Your task to perform on an android device: check battery use Image 0: 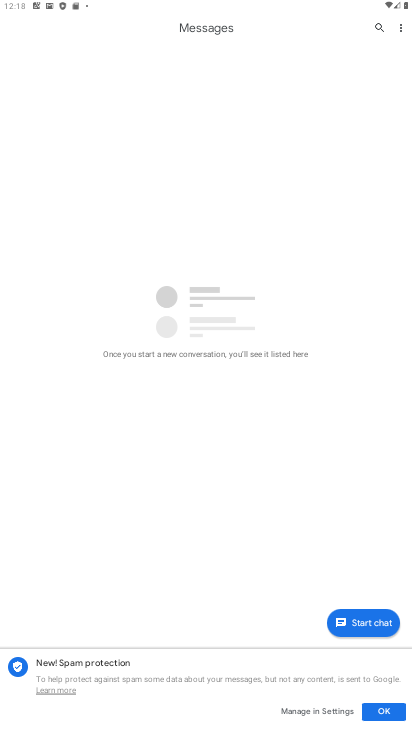
Step 0: press home button
Your task to perform on an android device: check battery use Image 1: 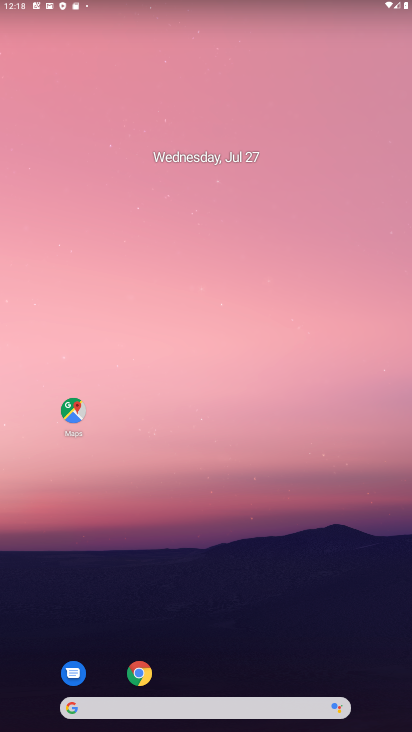
Step 1: drag from (166, 658) to (192, 264)
Your task to perform on an android device: check battery use Image 2: 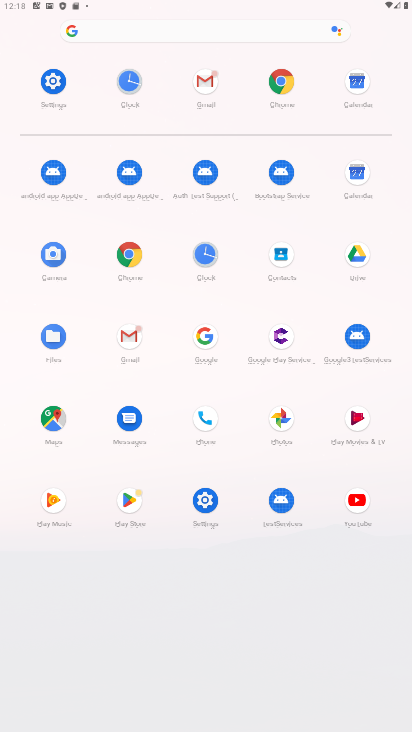
Step 2: click (36, 71)
Your task to perform on an android device: check battery use Image 3: 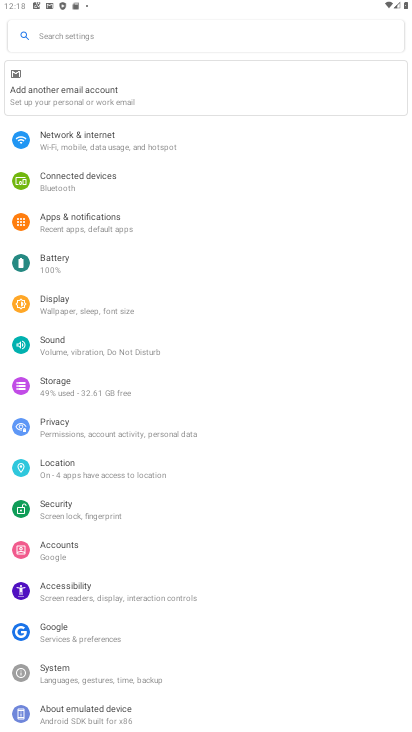
Step 3: click (58, 252)
Your task to perform on an android device: check battery use Image 4: 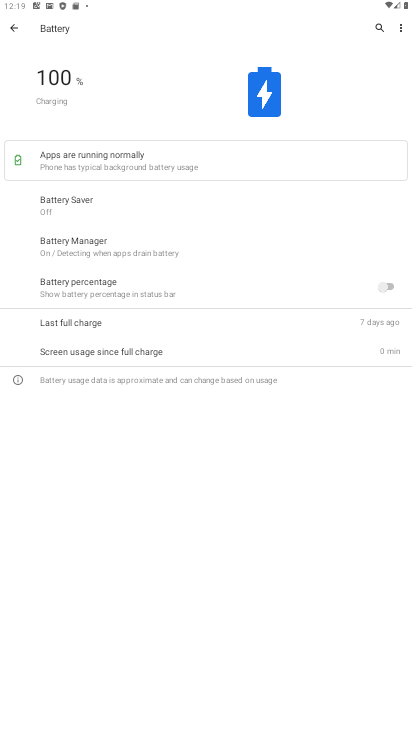
Step 4: task complete